Your task to perform on an android device: check android version Image 0: 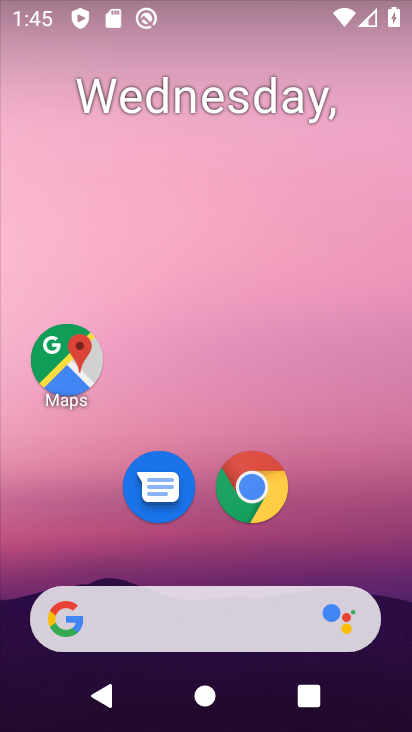
Step 0: drag from (344, 522) to (199, 43)
Your task to perform on an android device: check android version Image 1: 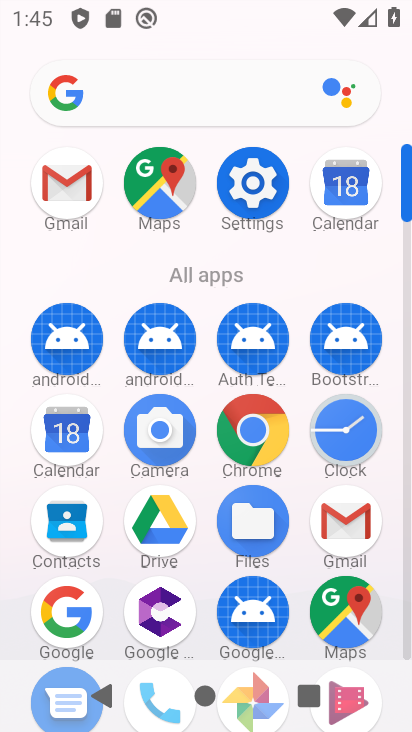
Step 1: click (254, 180)
Your task to perform on an android device: check android version Image 2: 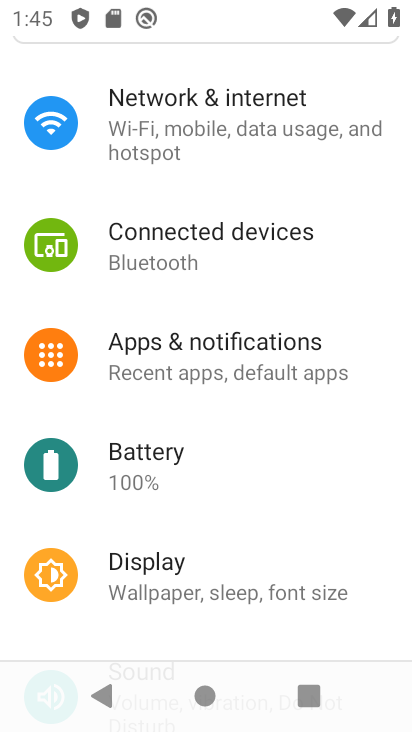
Step 2: drag from (211, 505) to (170, 125)
Your task to perform on an android device: check android version Image 3: 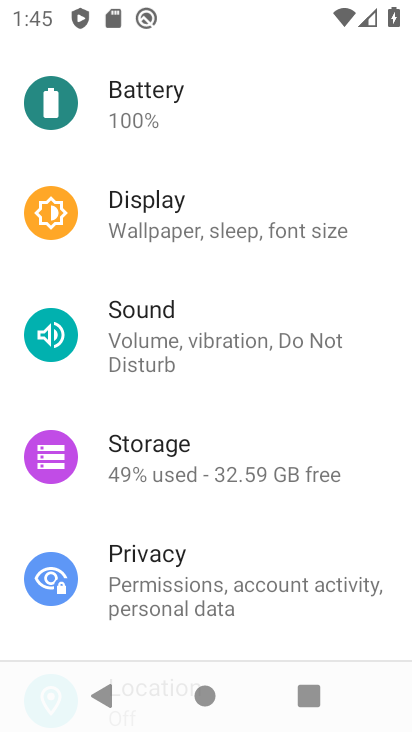
Step 3: drag from (246, 514) to (213, 247)
Your task to perform on an android device: check android version Image 4: 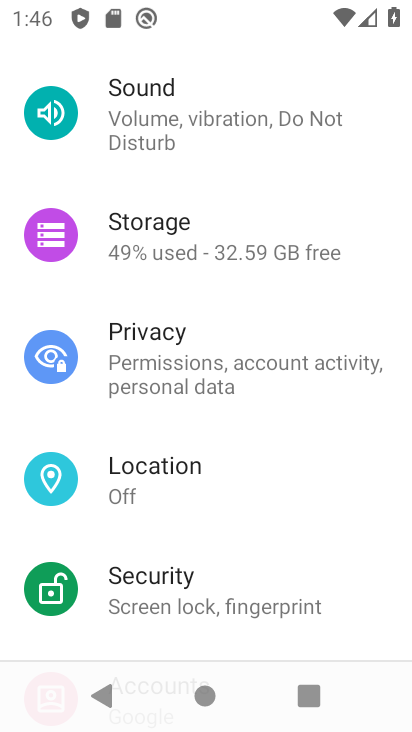
Step 4: drag from (227, 481) to (217, 105)
Your task to perform on an android device: check android version Image 5: 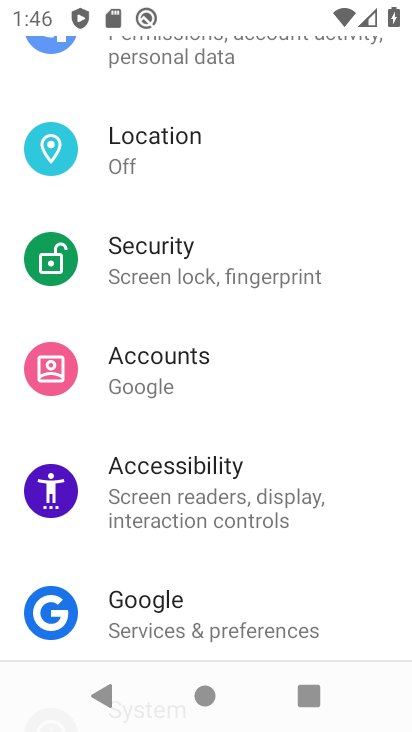
Step 5: drag from (269, 567) to (263, 296)
Your task to perform on an android device: check android version Image 6: 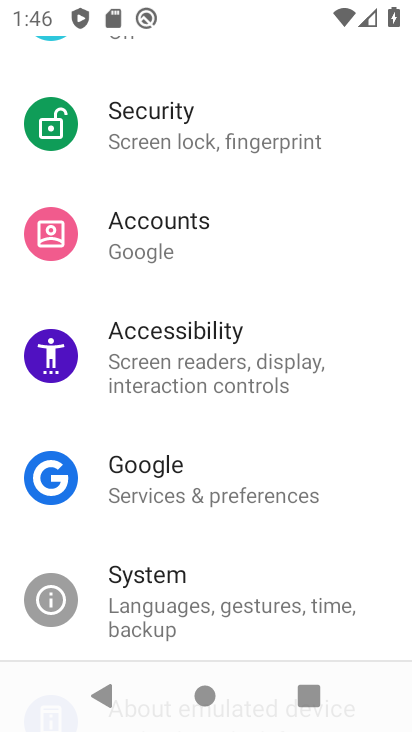
Step 6: drag from (274, 527) to (268, 244)
Your task to perform on an android device: check android version Image 7: 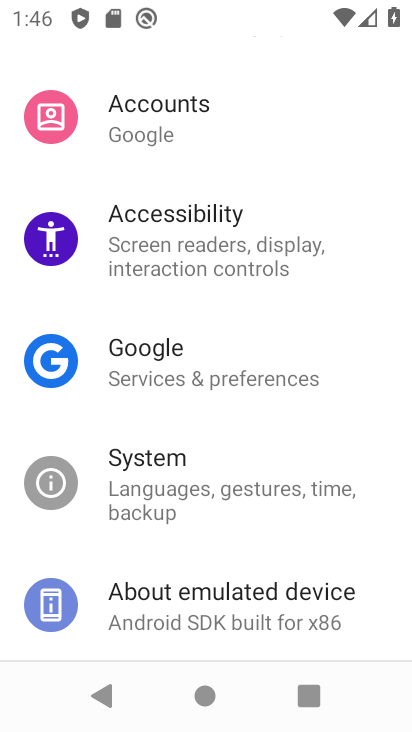
Step 7: drag from (250, 545) to (239, 191)
Your task to perform on an android device: check android version Image 8: 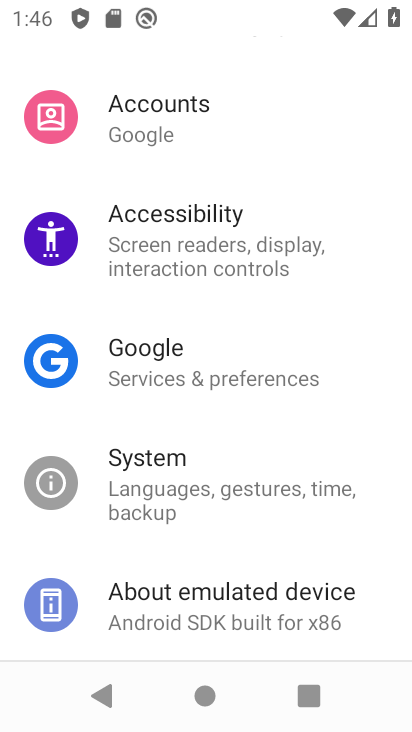
Step 8: click (177, 590)
Your task to perform on an android device: check android version Image 9: 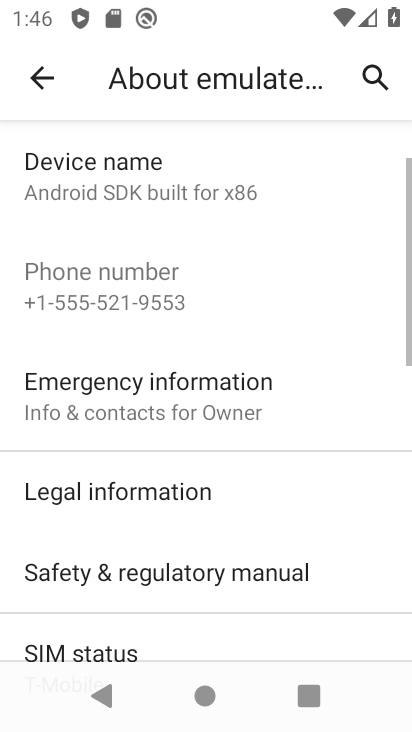
Step 9: task complete